Your task to perform on an android device: Open Youtube and go to the subscriptions tab Image 0: 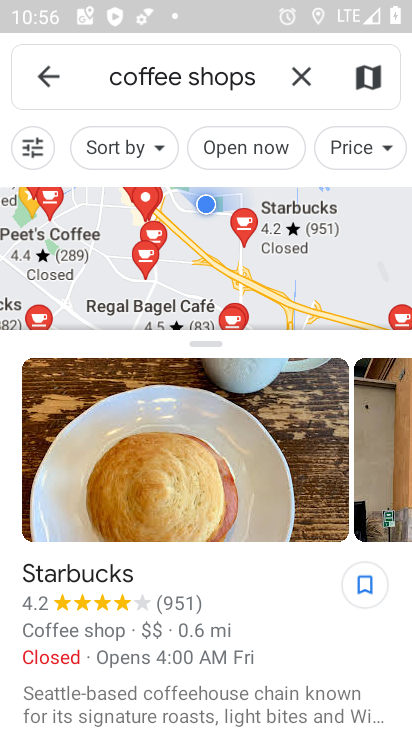
Step 0: press home button
Your task to perform on an android device: Open Youtube and go to the subscriptions tab Image 1: 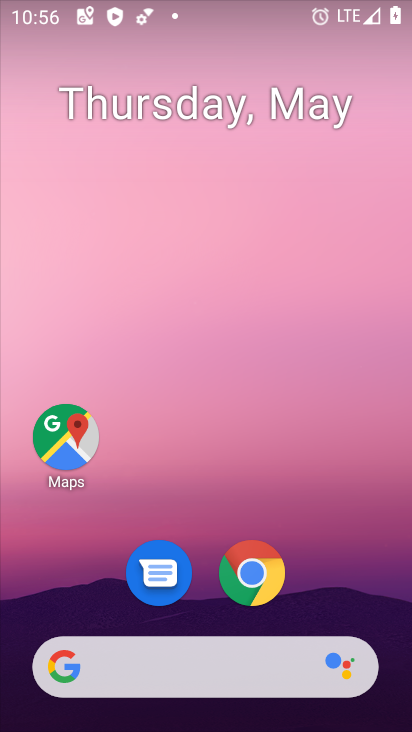
Step 1: drag from (210, 615) to (183, 226)
Your task to perform on an android device: Open Youtube and go to the subscriptions tab Image 2: 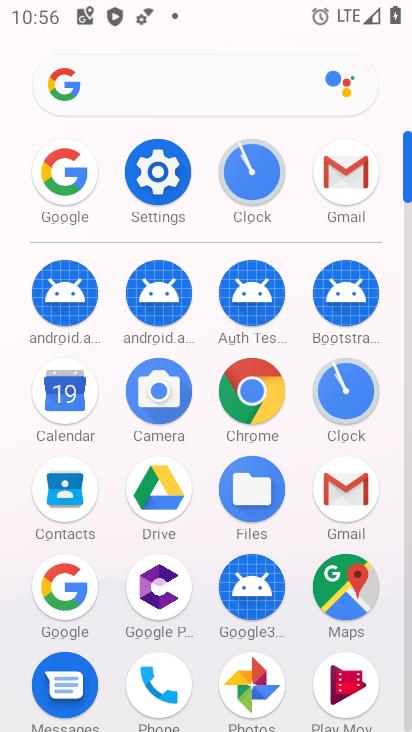
Step 2: drag from (315, 660) to (275, 345)
Your task to perform on an android device: Open Youtube and go to the subscriptions tab Image 3: 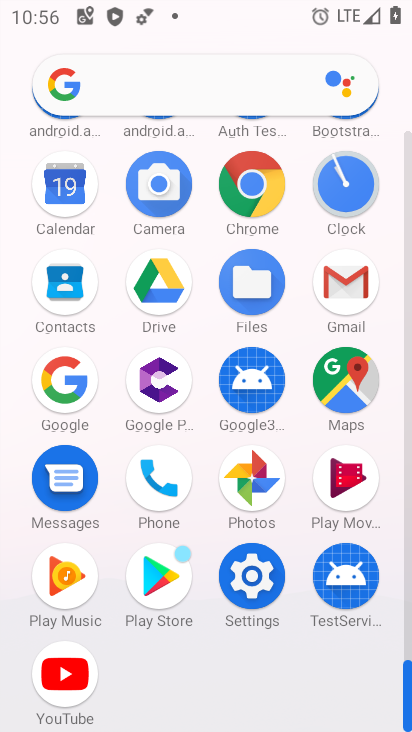
Step 3: click (52, 667)
Your task to perform on an android device: Open Youtube and go to the subscriptions tab Image 4: 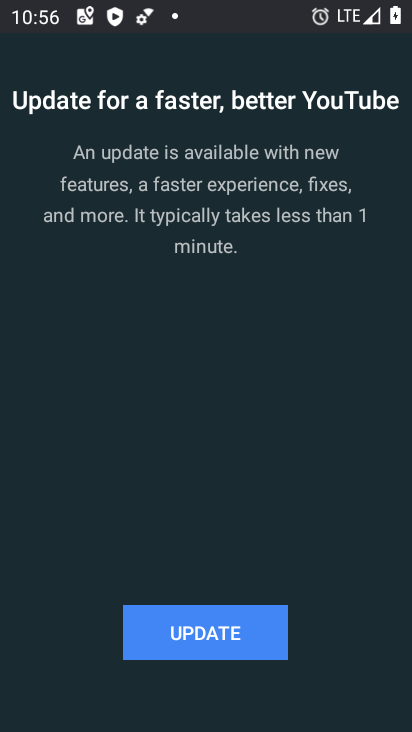
Step 4: click (159, 651)
Your task to perform on an android device: Open Youtube and go to the subscriptions tab Image 5: 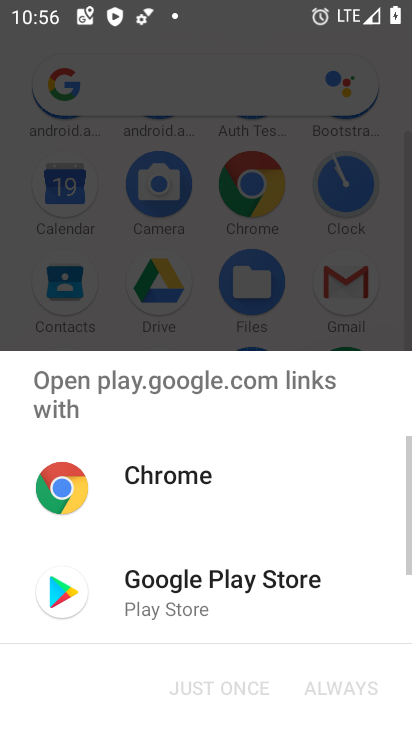
Step 5: click (143, 587)
Your task to perform on an android device: Open Youtube and go to the subscriptions tab Image 6: 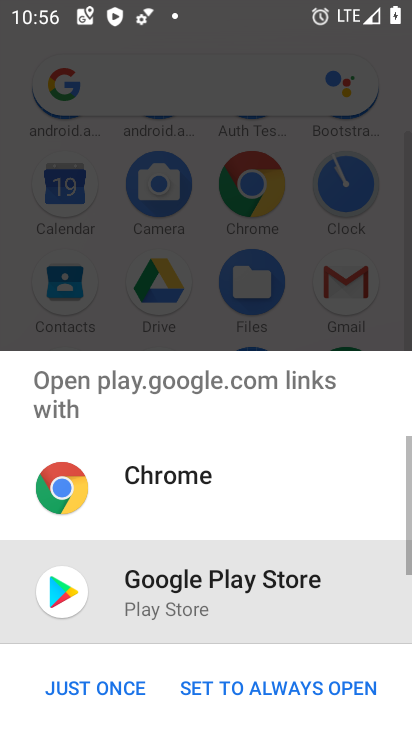
Step 6: click (197, 676)
Your task to perform on an android device: Open Youtube and go to the subscriptions tab Image 7: 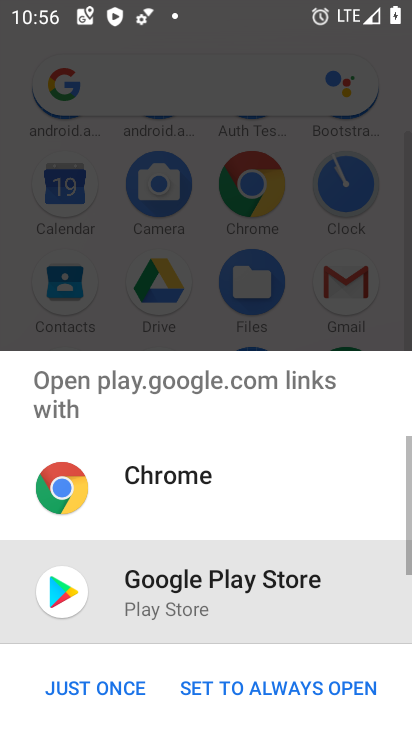
Step 7: drag from (197, 676) to (99, 682)
Your task to perform on an android device: Open Youtube and go to the subscriptions tab Image 8: 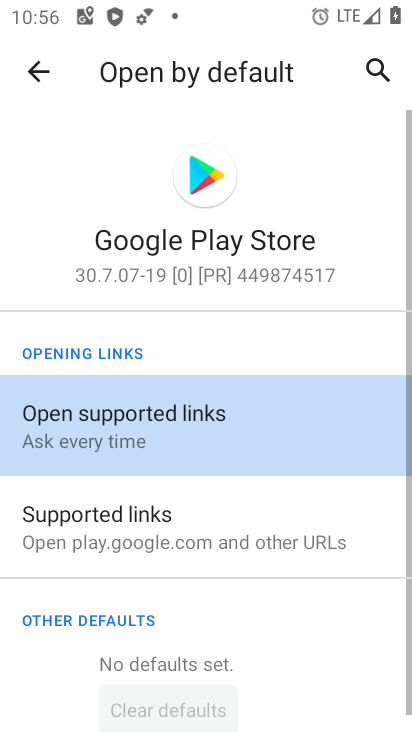
Step 8: click (36, 67)
Your task to perform on an android device: Open Youtube and go to the subscriptions tab Image 9: 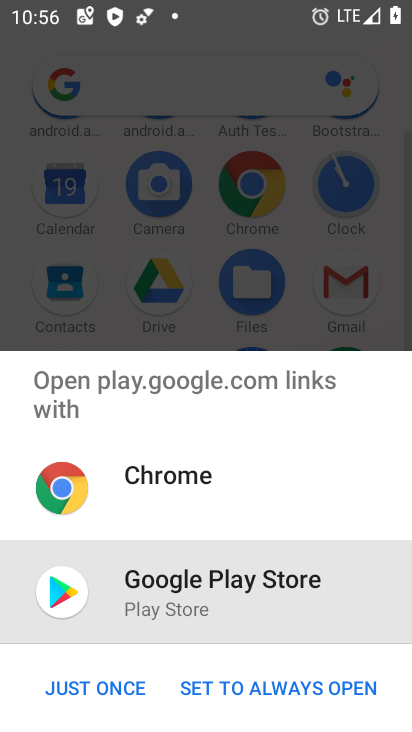
Step 9: click (115, 685)
Your task to perform on an android device: Open Youtube and go to the subscriptions tab Image 10: 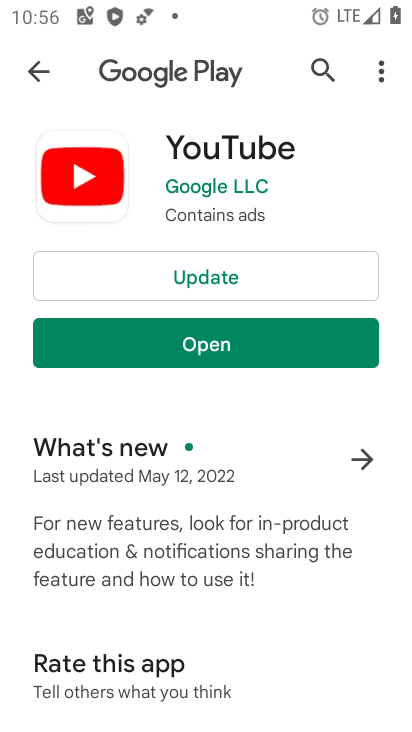
Step 10: click (217, 260)
Your task to perform on an android device: Open Youtube and go to the subscriptions tab Image 11: 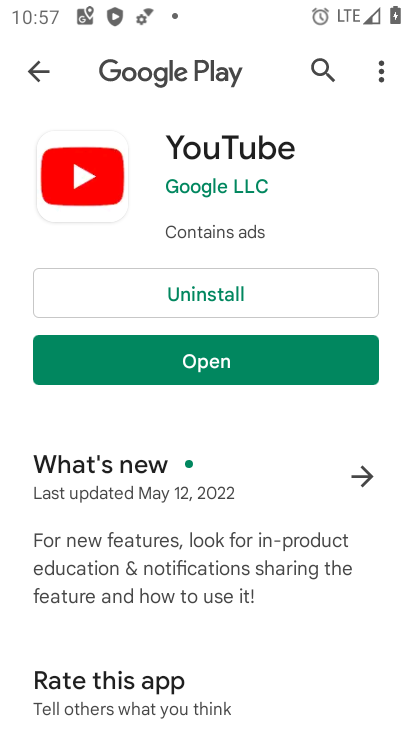
Step 11: click (220, 366)
Your task to perform on an android device: Open Youtube and go to the subscriptions tab Image 12: 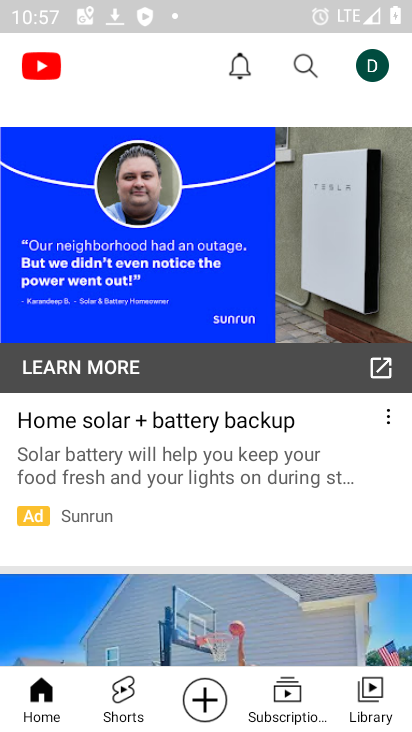
Step 12: click (293, 692)
Your task to perform on an android device: Open Youtube and go to the subscriptions tab Image 13: 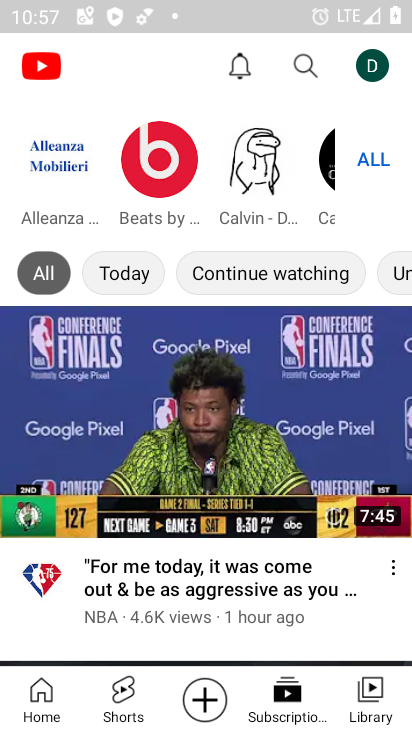
Step 13: task complete